Your task to perform on an android device: turn on showing notifications on the lock screen Image 0: 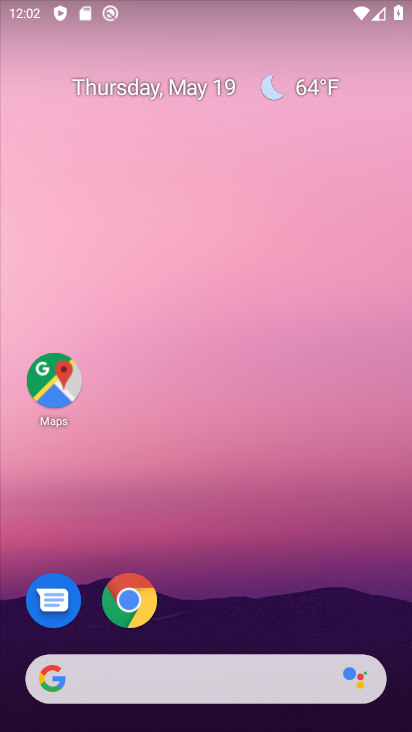
Step 0: drag from (204, 636) to (162, 103)
Your task to perform on an android device: turn on showing notifications on the lock screen Image 1: 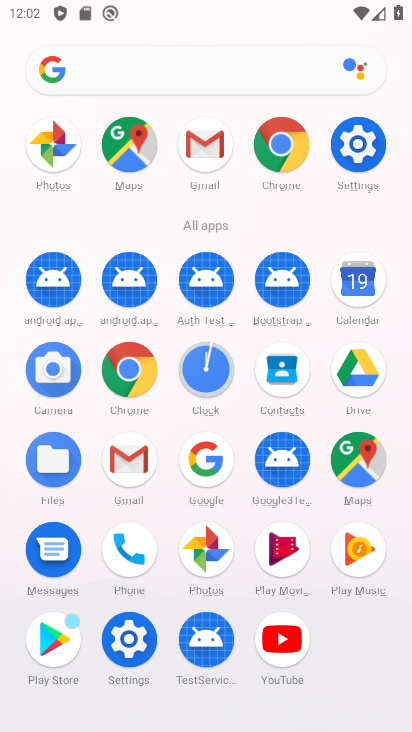
Step 1: click (140, 639)
Your task to perform on an android device: turn on showing notifications on the lock screen Image 2: 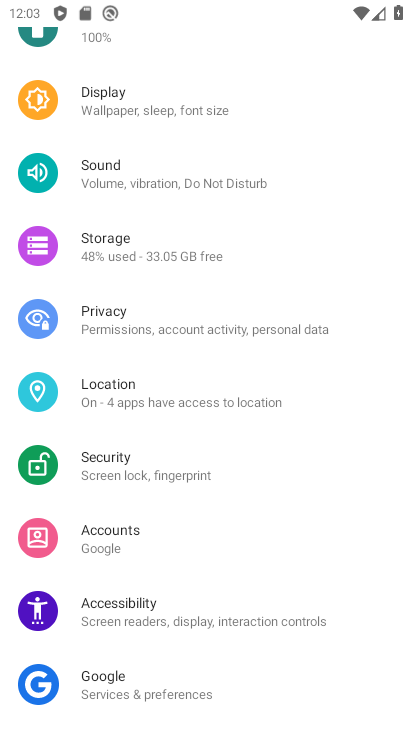
Step 2: click (118, 384)
Your task to perform on an android device: turn on showing notifications on the lock screen Image 3: 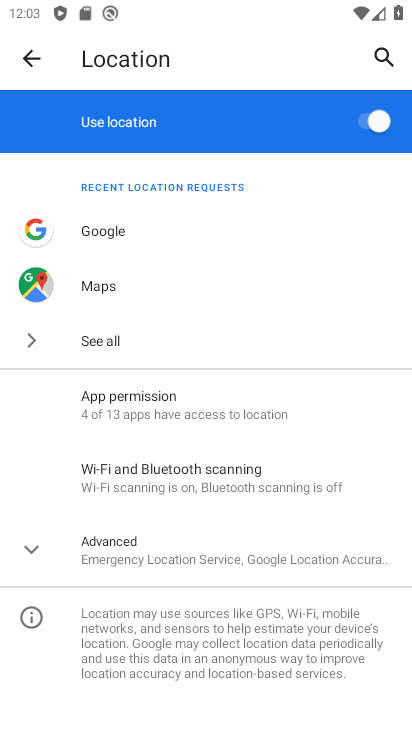
Step 3: click (19, 79)
Your task to perform on an android device: turn on showing notifications on the lock screen Image 4: 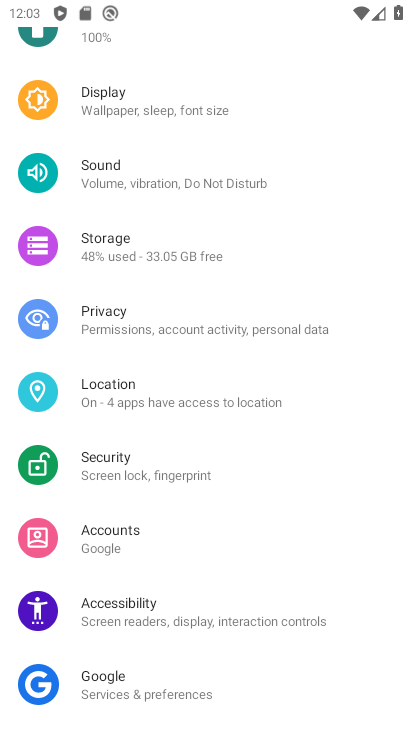
Step 4: drag from (117, 124) to (112, 569)
Your task to perform on an android device: turn on showing notifications on the lock screen Image 5: 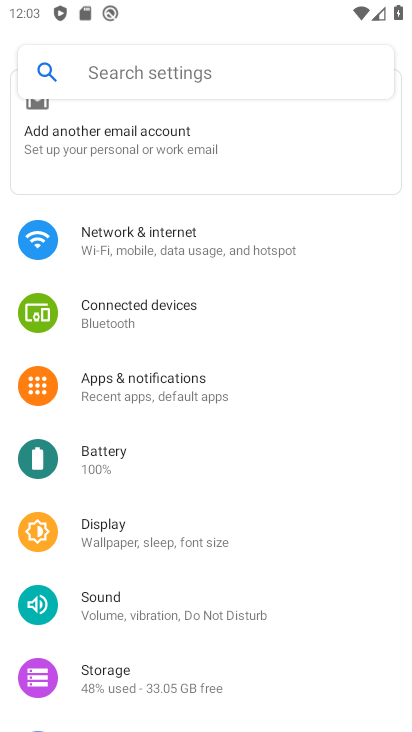
Step 5: click (161, 388)
Your task to perform on an android device: turn on showing notifications on the lock screen Image 6: 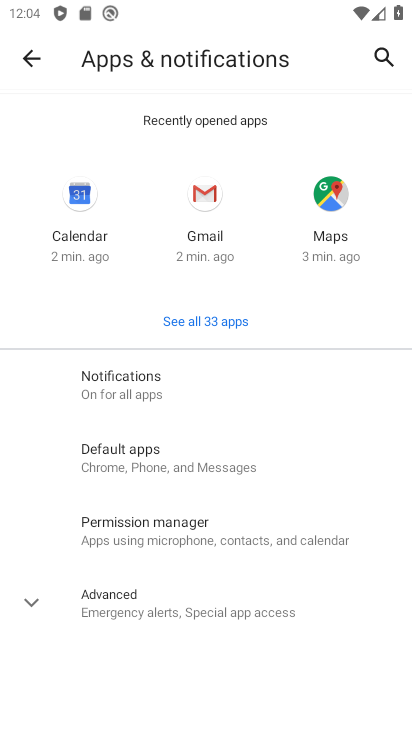
Step 6: click (135, 396)
Your task to perform on an android device: turn on showing notifications on the lock screen Image 7: 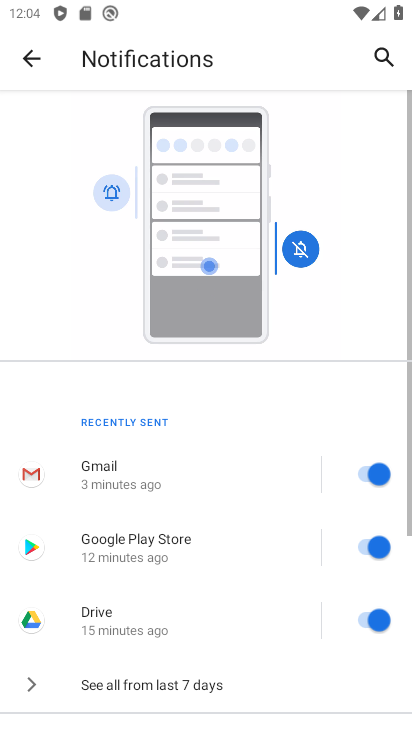
Step 7: drag from (220, 594) to (167, 147)
Your task to perform on an android device: turn on showing notifications on the lock screen Image 8: 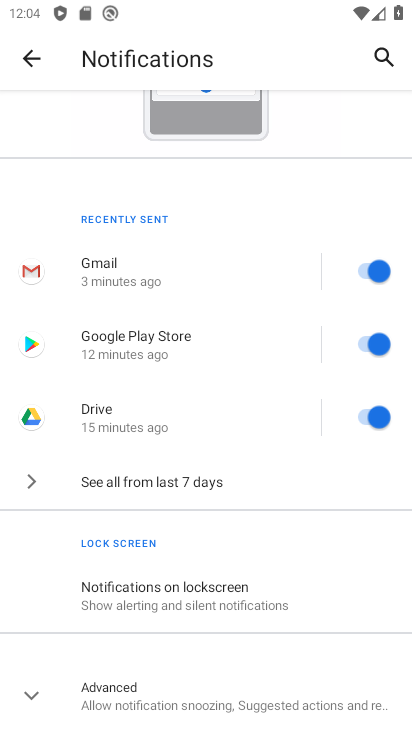
Step 8: click (182, 603)
Your task to perform on an android device: turn on showing notifications on the lock screen Image 9: 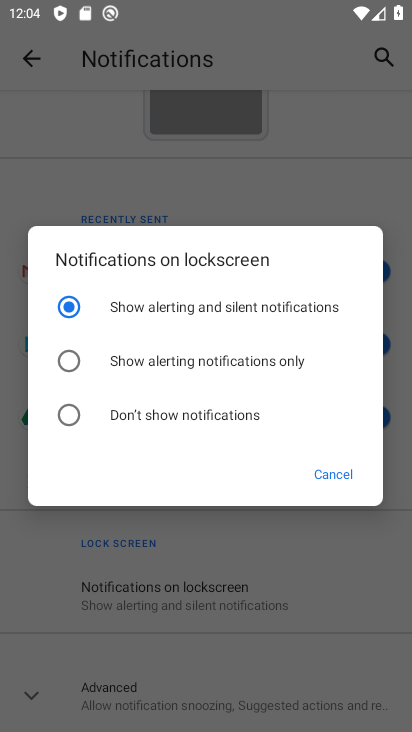
Step 9: click (147, 311)
Your task to perform on an android device: turn on showing notifications on the lock screen Image 10: 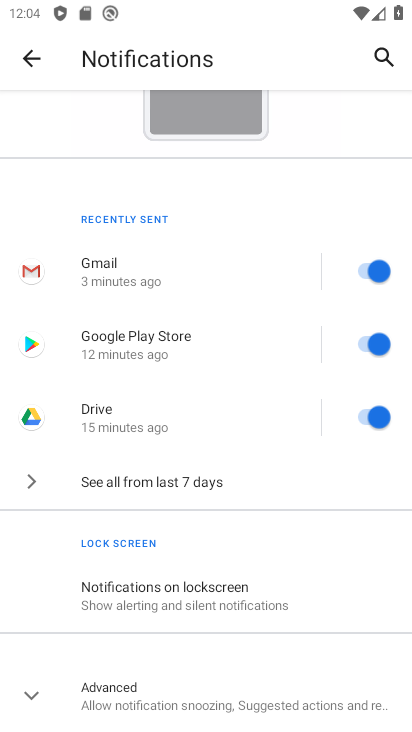
Step 10: task complete